Your task to perform on an android device: check out phone information Image 0: 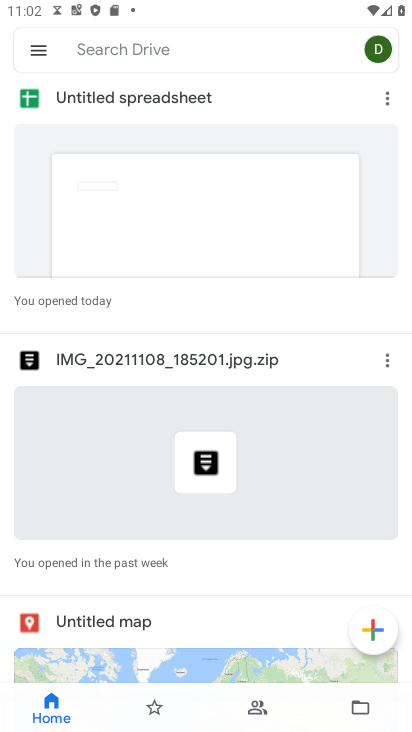
Step 0: press home button
Your task to perform on an android device: check out phone information Image 1: 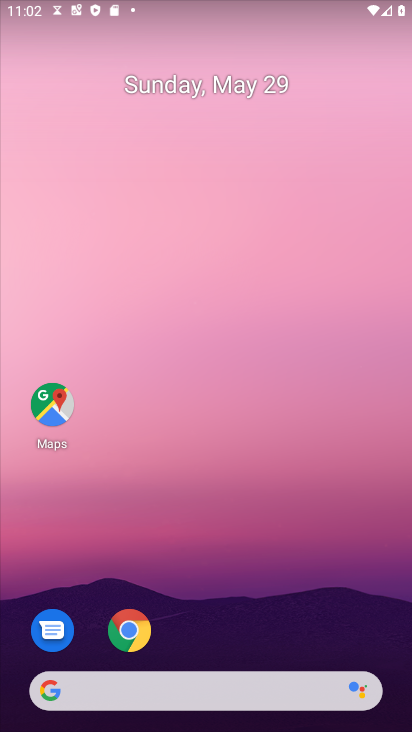
Step 1: drag from (259, 489) to (338, 133)
Your task to perform on an android device: check out phone information Image 2: 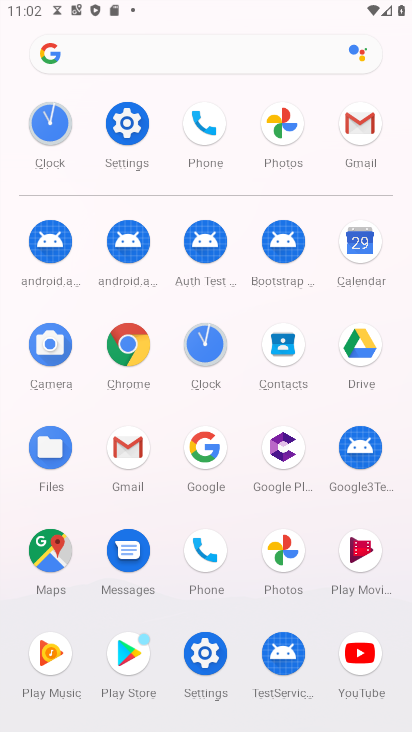
Step 2: click (129, 116)
Your task to perform on an android device: check out phone information Image 3: 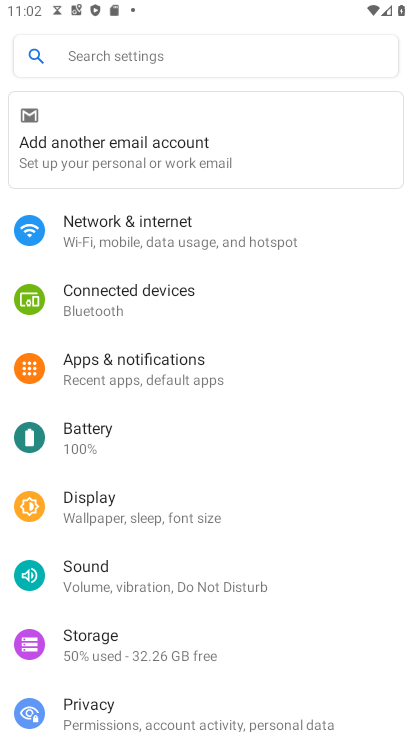
Step 3: drag from (184, 558) to (249, 290)
Your task to perform on an android device: check out phone information Image 4: 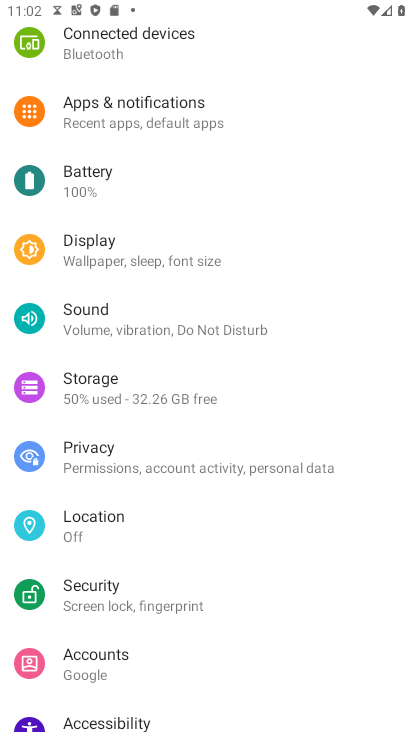
Step 4: drag from (229, 531) to (286, 273)
Your task to perform on an android device: check out phone information Image 5: 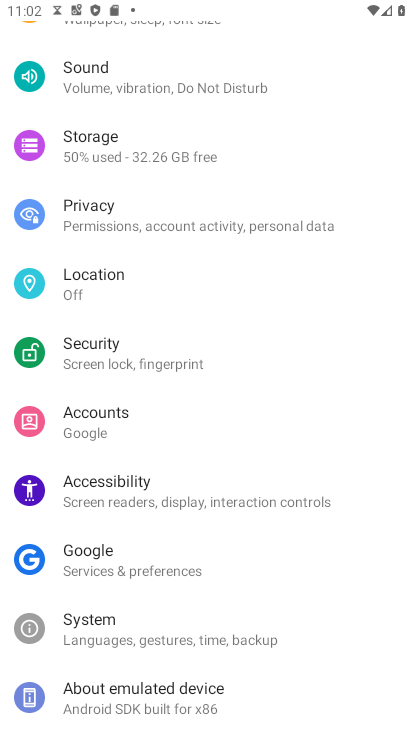
Step 5: click (186, 289)
Your task to perform on an android device: check out phone information Image 6: 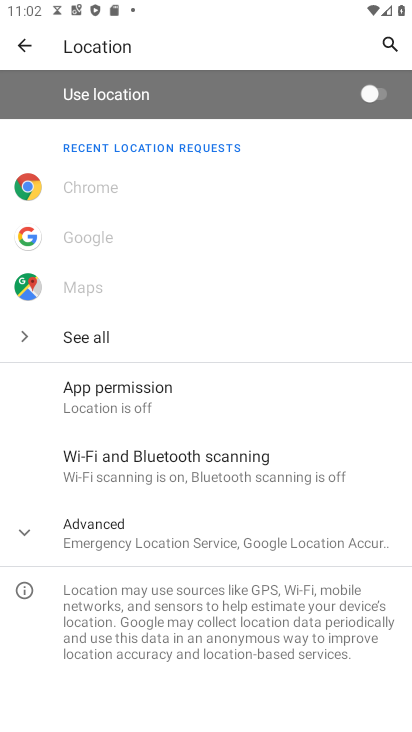
Step 6: click (183, 528)
Your task to perform on an android device: check out phone information Image 7: 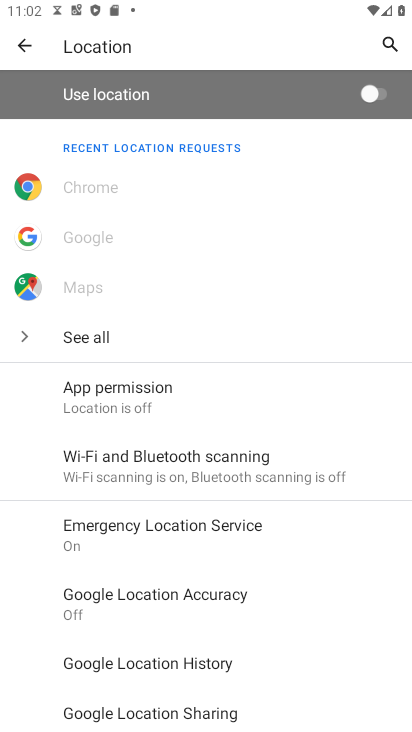
Step 7: drag from (274, 626) to (280, 293)
Your task to perform on an android device: check out phone information Image 8: 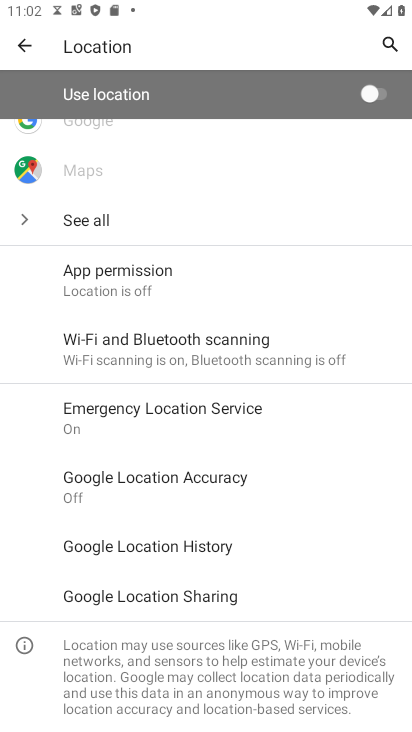
Step 8: press back button
Your task to perform on an android device: check out phone information Image 9: 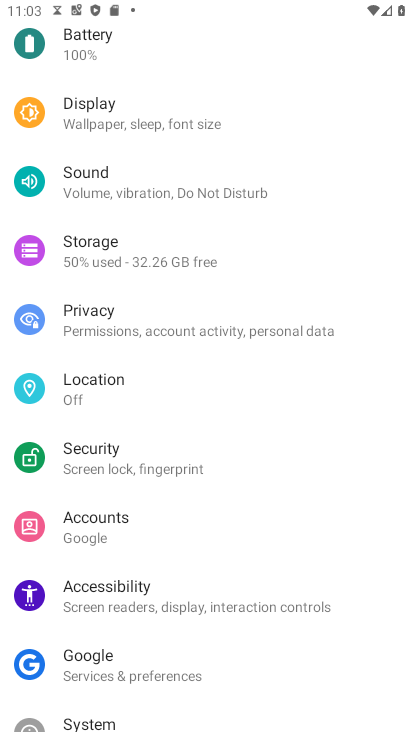
Step 9: drag from (170, 554) to (192, 256)
Your task to perform on an android device: check out phone information Image 10: 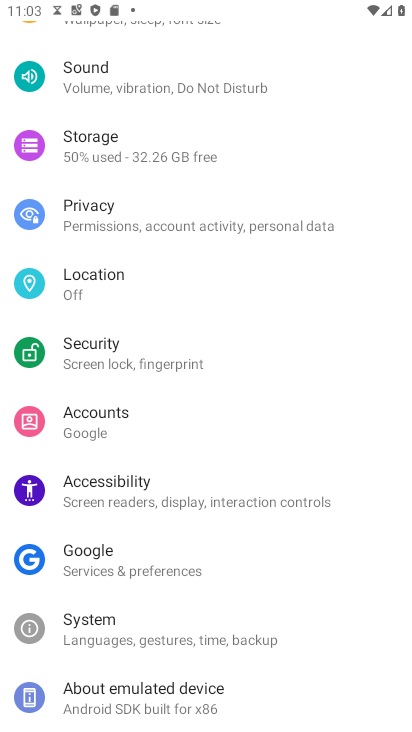
Step 10: click (172, 695)
Your task to perform on an android device: check out phone information Image 11: 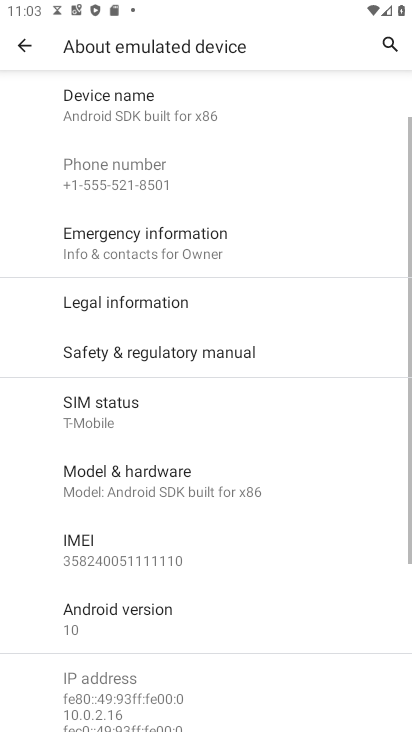
Step 11: drag from (215, 616) to (218, 205)
Your task to perform on an android device: check out phone information Image 12: 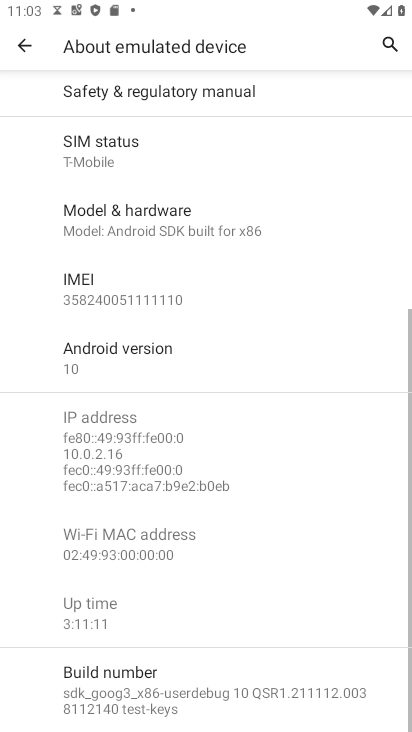
Step 12: drag from (183, 627) to (229, 240)
Your task to perform on an android device: check out phone information Image 13: 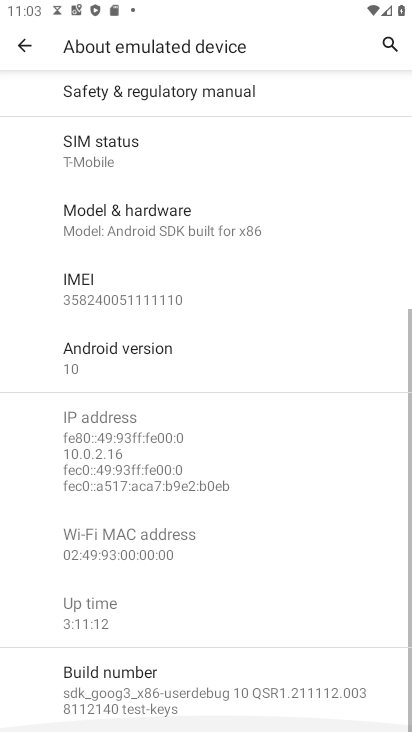
Step 13: drag from (240, 170) to (245, 724)
Your task to perform on an android device: check out phone information Image 14: 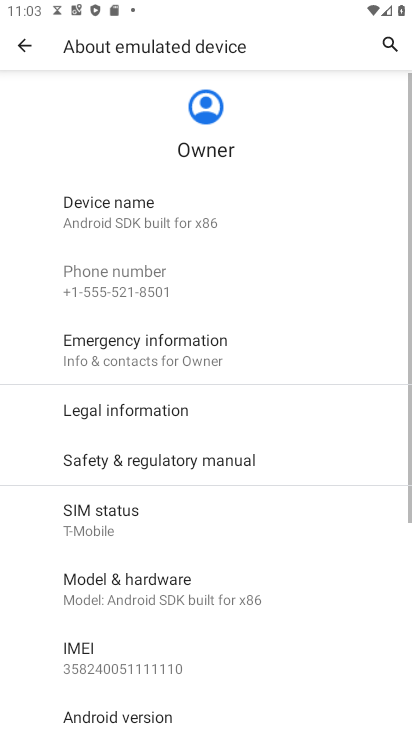
Step 14: click (169, 402)
Your task to perform on an android device: check out phone information Image 15: 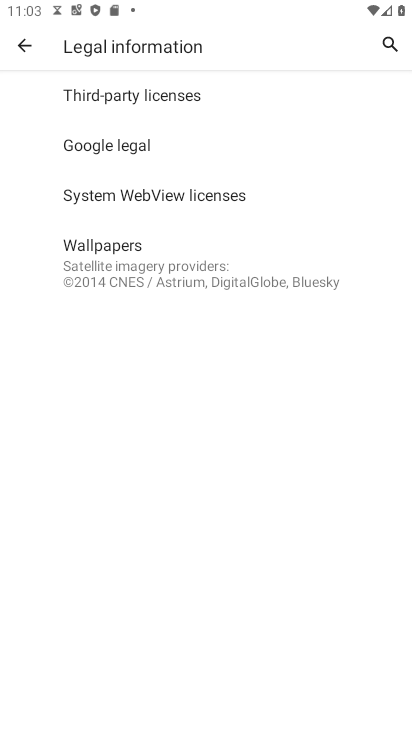
Step 15: task complete